Your task to perform on an android device: Go to wifi settings Image 0: 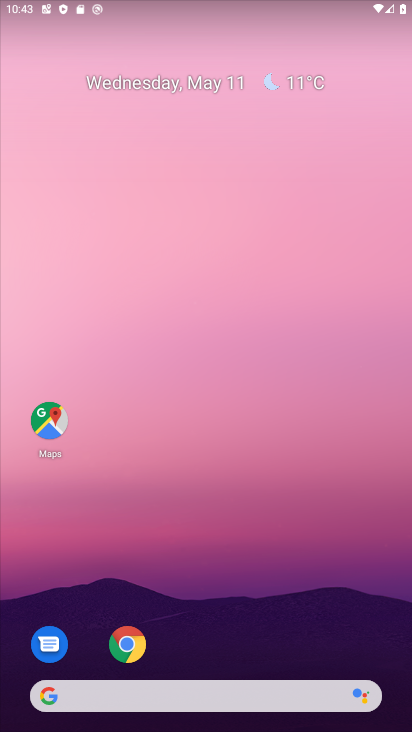
Step 0: drag from (284, 647) to (230, 0)
Your task to perform on an android device: Go to wifi settings Image 1: 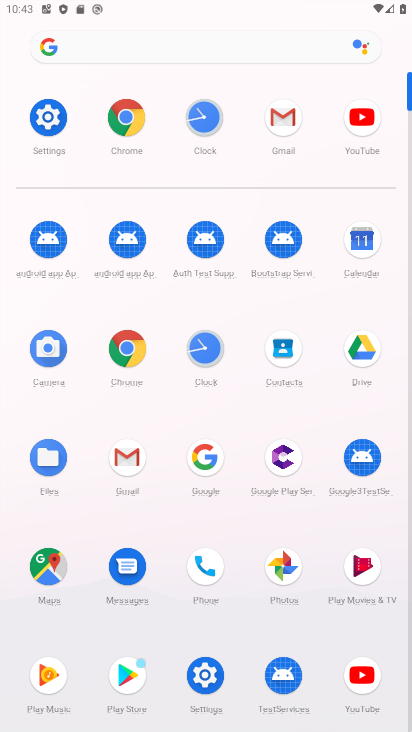
Step 1: click (46, 132)
Your task to perform on an android device: Go to wifi settings Image 2: 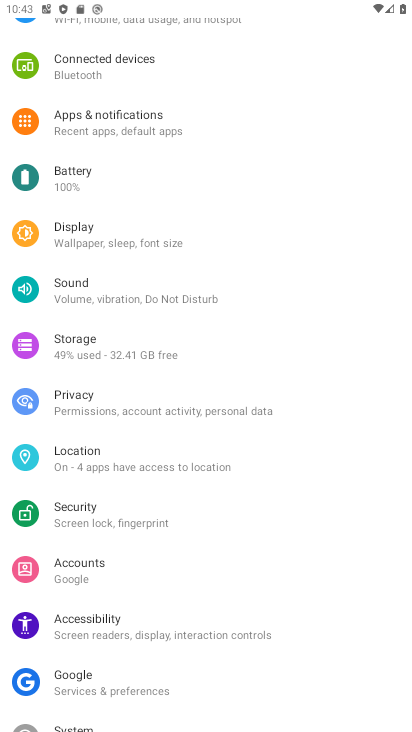
Step 2: drag from (290, 180) to (300, 524)
Your task to perform on an android device: Go to wifi settings Image 3: 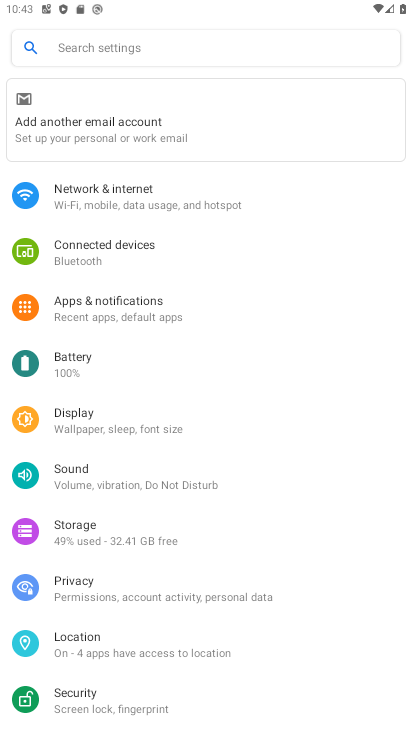
Step 3: click (84, 199)
Your task to perform on an android device: Go to wifi settings Image 4: 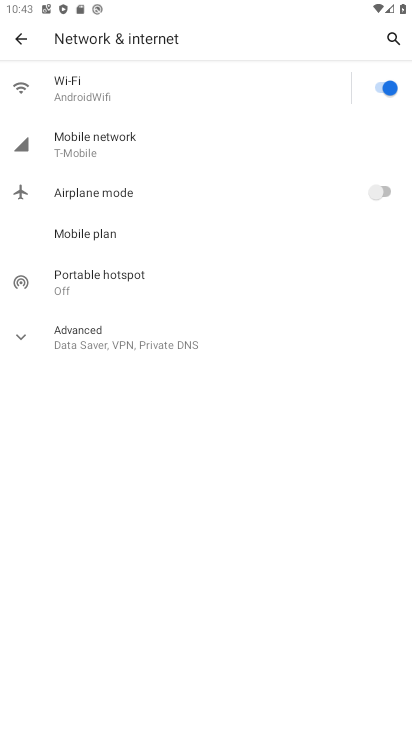
Step 4: click (54, 83)
Your task to perform on an android device: Go to wifi settings Image 5: 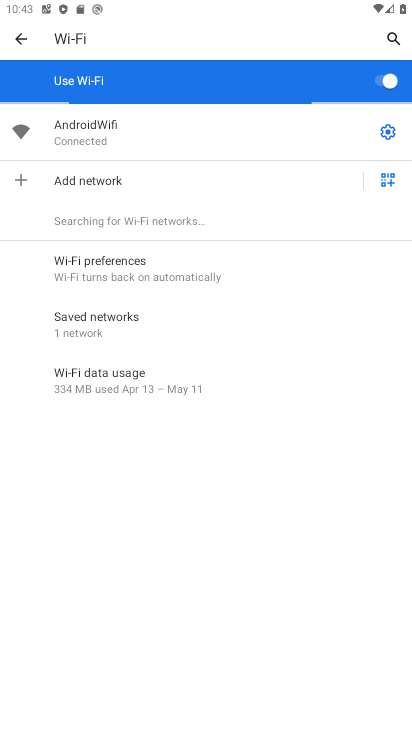
Step 5: task complete